Your task to perform on an android device: turn on translation in the chrome app Image 0: 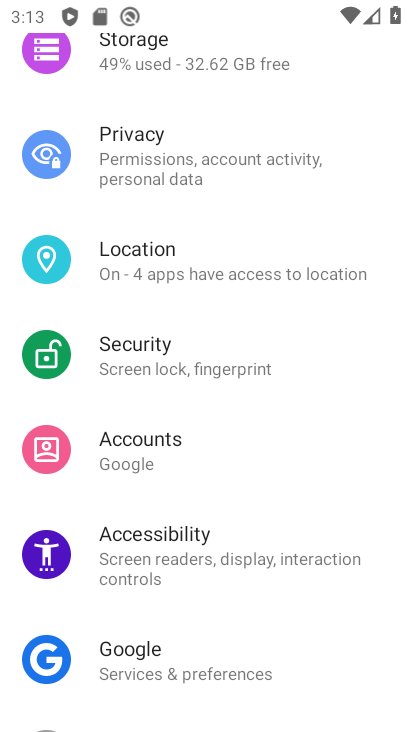
Step 0: press home button
Your task to perform on an android device: turn on translation in the chrome app Image 1: 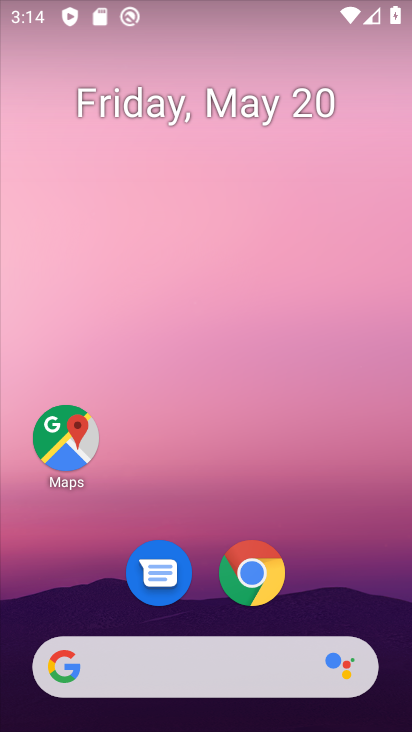
Step 1: click (233, 578)
Your task to perform on an android device: turn on translation in the chrome app Image 2: 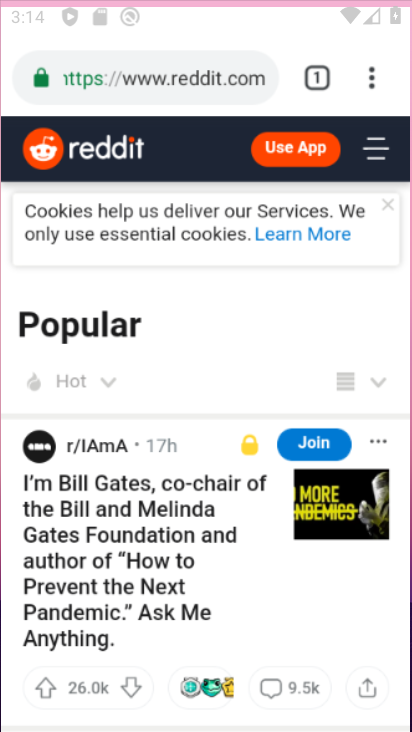
Step 2: click (246, 568)
Your task to perform on an android device: turn on translation in the chrome app Image 3: 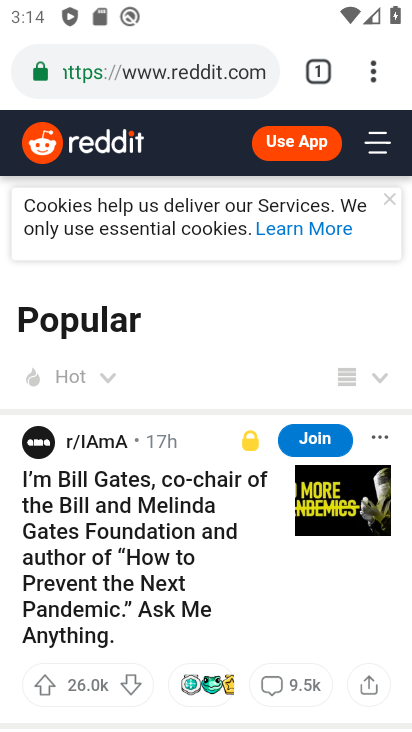
Step 3: click (369, 75)
Your task to perform on an android device: turn on translation in the chrome app Image 4: 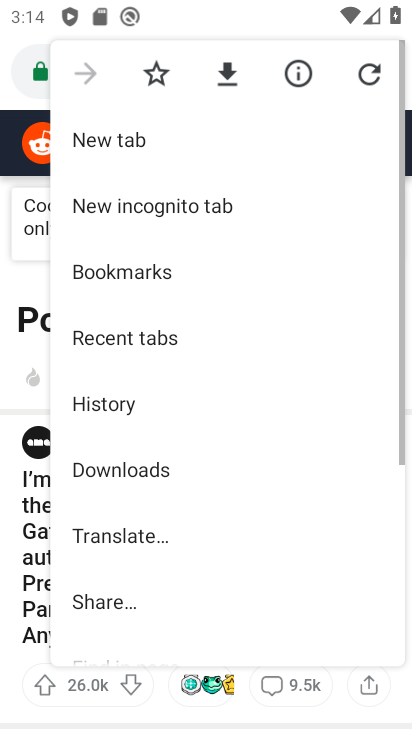
Step 4: drag from (140, 599) to (101, 61)
Your task to perform on an android device: turn on translation in the chrome app Image 5: 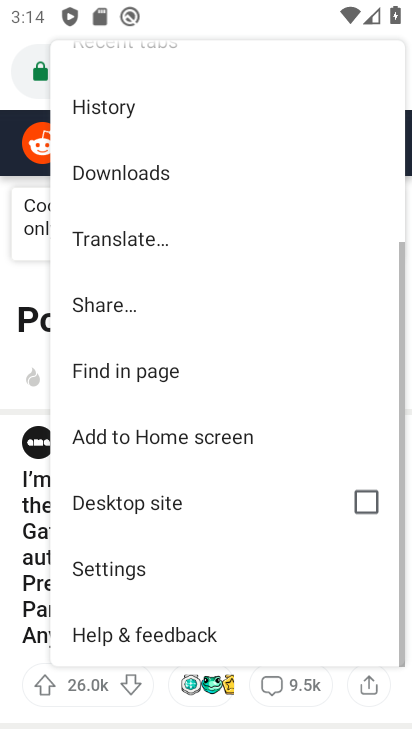
Step 5: click (133, 553)
Your task to perform on an android device: turn on translation in the chrome app Image 6: 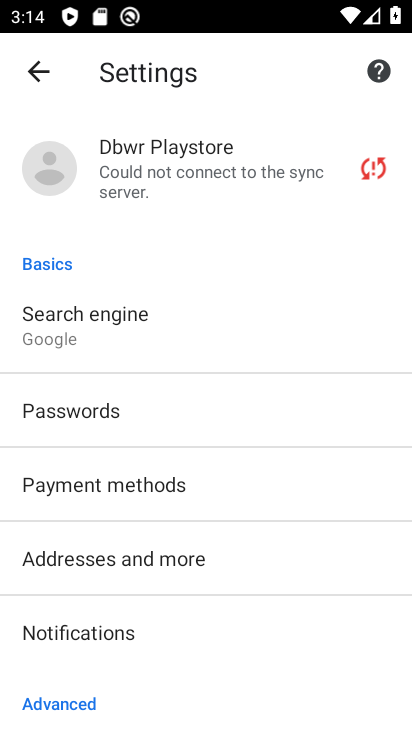
Step 6: drag from (148, 617) to (100, 137)
Your task to perform on an android device: turn on translation in the chrome app Image 7: 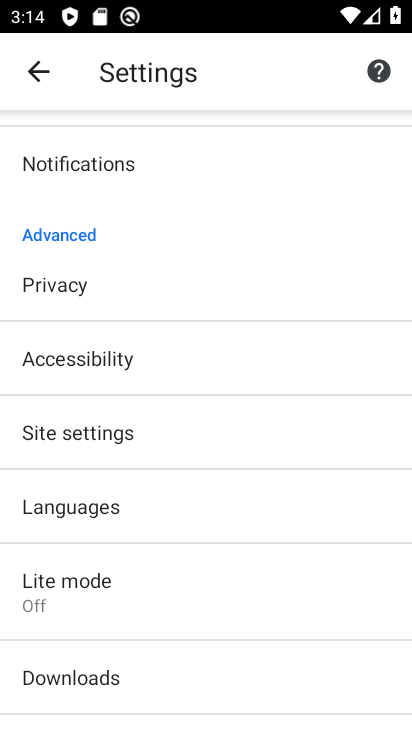
Step 7: click (85, 518)
Your task to perform on an android device: turn on translation in the chrome app Image 8: 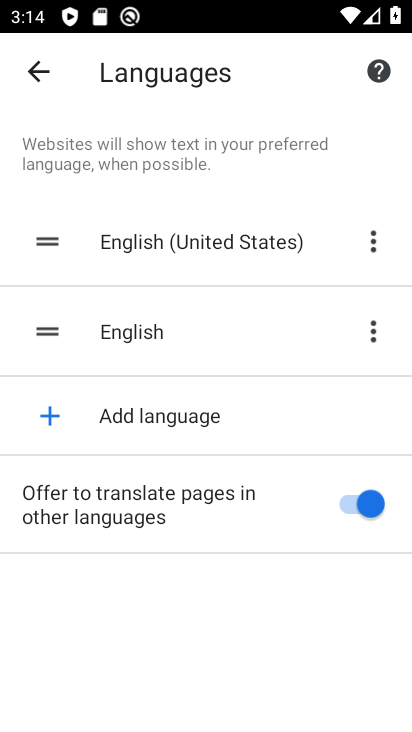
Step 8: task complete